Your task to perform on an android device: turn off airplane mode Image 0: 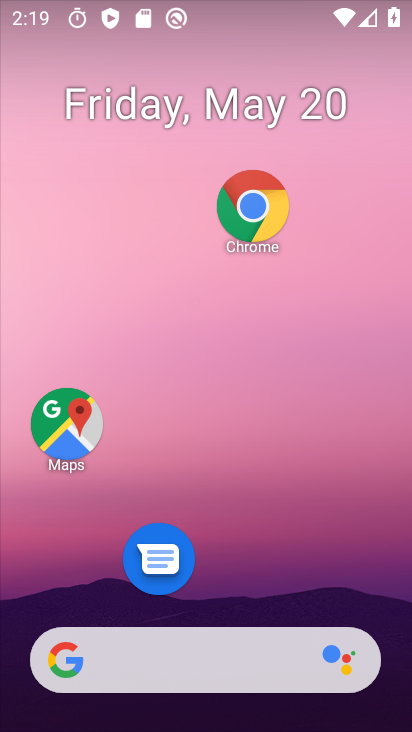
Step 0: drag from (217, 600) to (258, 3)
Your task to perform on an android device: turn off airplane mode Image 1: 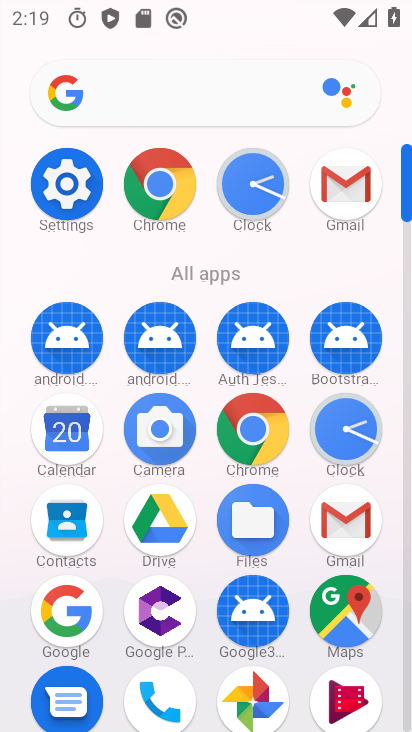
Step 1: click (80, 174)
Your task to perform on an android device: turn off airplane mode Image 2: 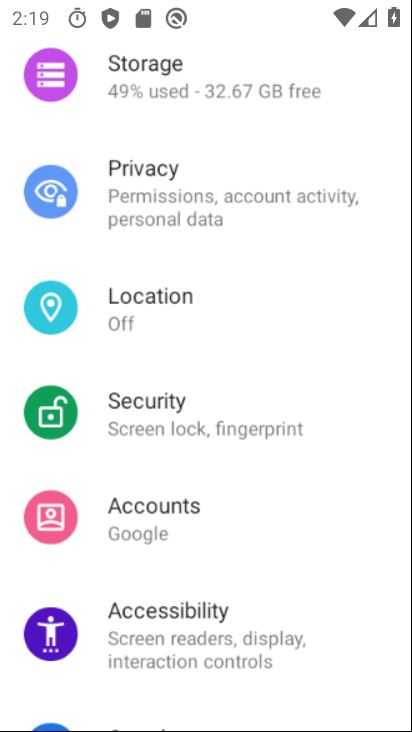
Step 2: drag from (146, 130) to (136, 626)
Your task to perform on an android device: turn off airplane mode Image 3: 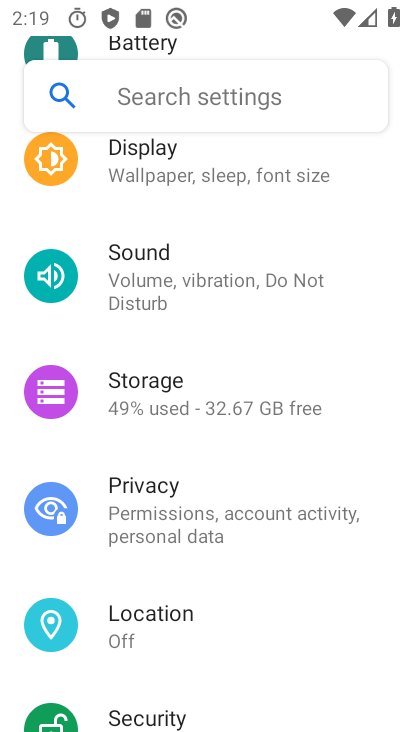
Step 3: drag from (248, 186) to (214, 633)
Your task to perform on an android device: turn off airplane mode Image 4: 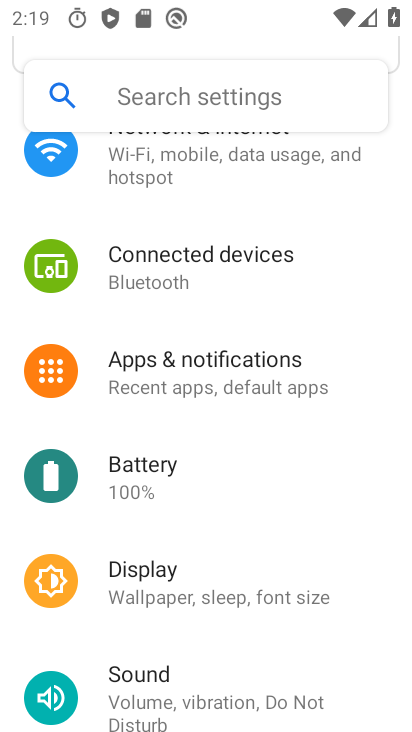
Step 4: click (204, 150)
Your task to perform on an android device: turn off airplane mode Image 5: 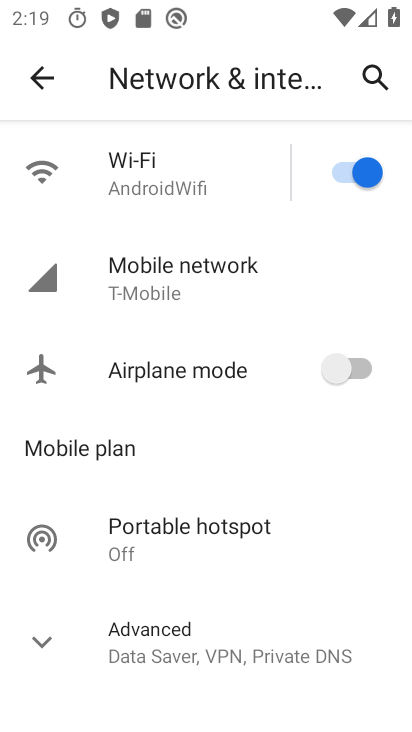
Step 5: task complete